Your task to perform on an android device: Show me popular videos on Youtube Image 0: 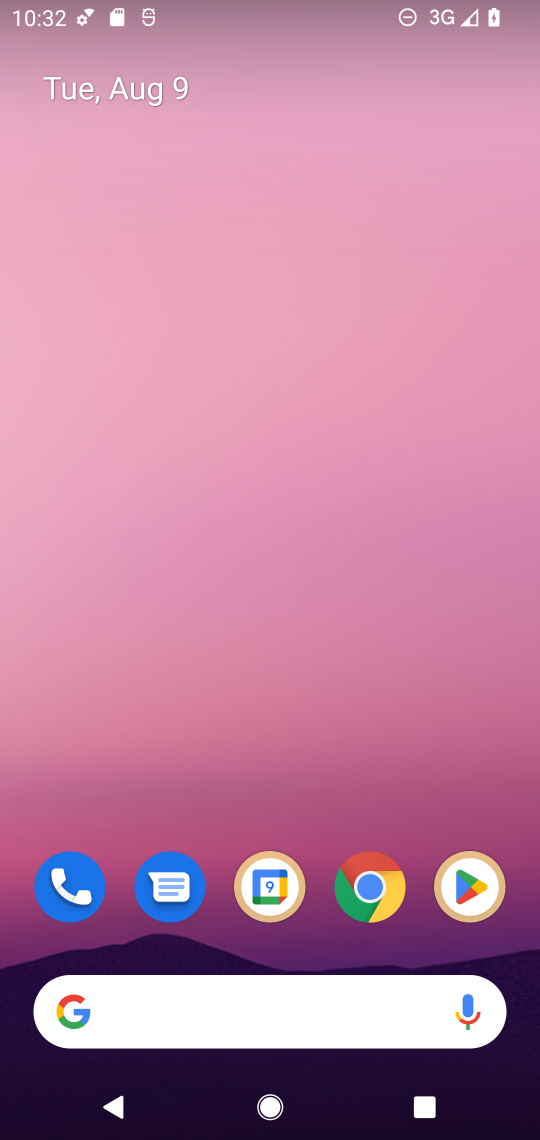
Step 0: drag from (224, 523) to (247, 90)
Your task to perform on an android device: Show me popular videos on Youtube Image 1: 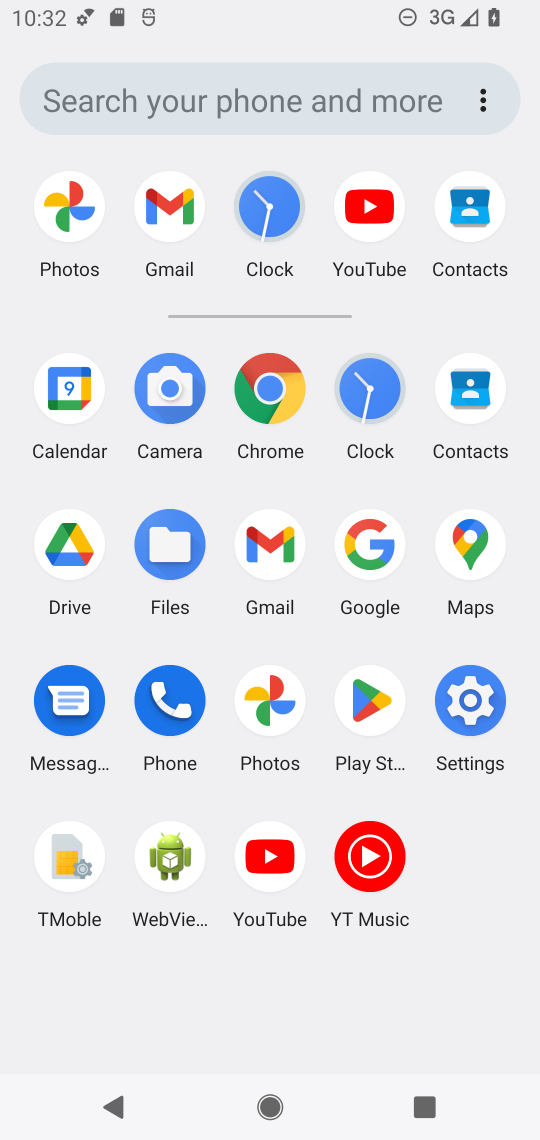
Step 1: click (267, 840)
Your task to perform on an android device: Show me popular videos on Youtube Image 2: 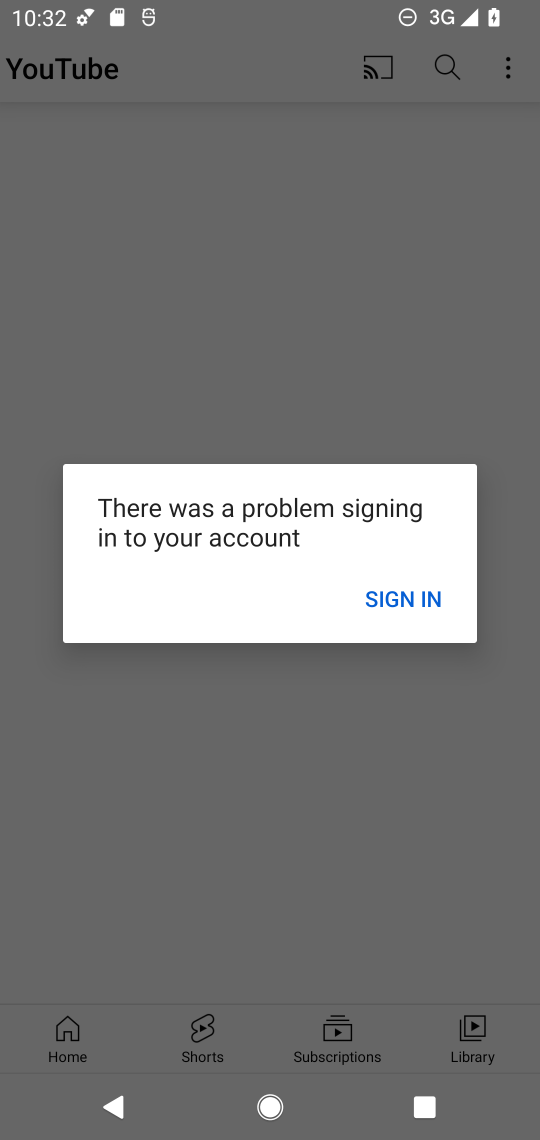
Step 2: task complete